Your task to perform on an android device: Go to Wikipedia Image 0: 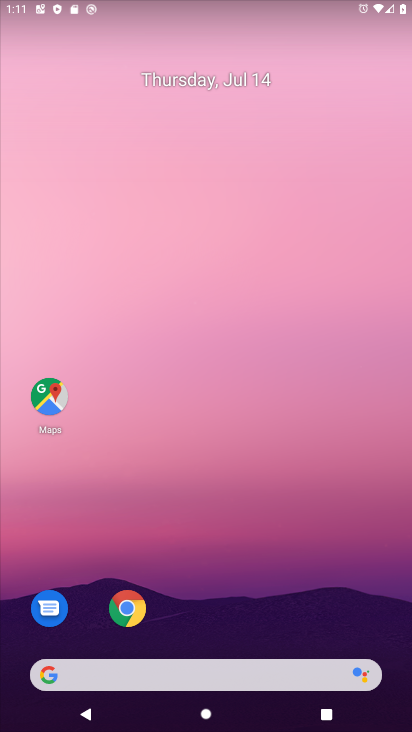
Step 0: click (119, 611)
Your task to perform on an android device: Go to Wikipedia Image 1: 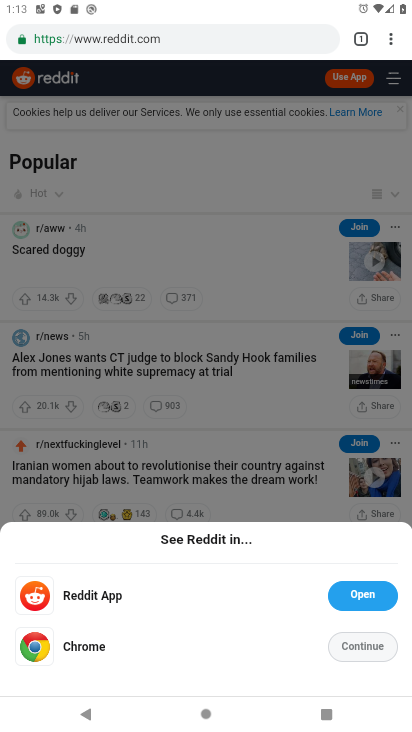
Step 1: click (174, 39)
Your task to perform on an android device: Go to Wikipedia Image 2: 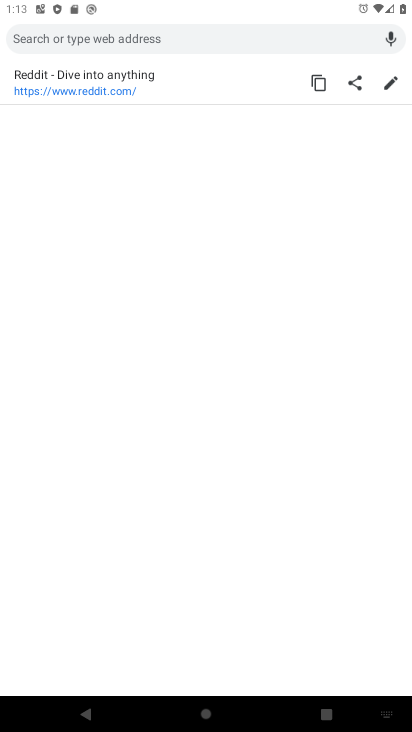
Step 2: type " Wikipedia"
Your task to perform on an android device: Go to Wikipedia Image 3: 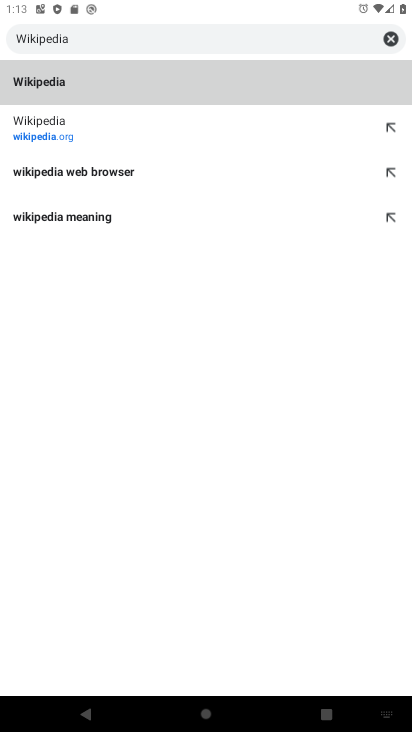
Step 3: click (67, 126)
Your task to perform on an android device: Go to Wikipedia Image 4: 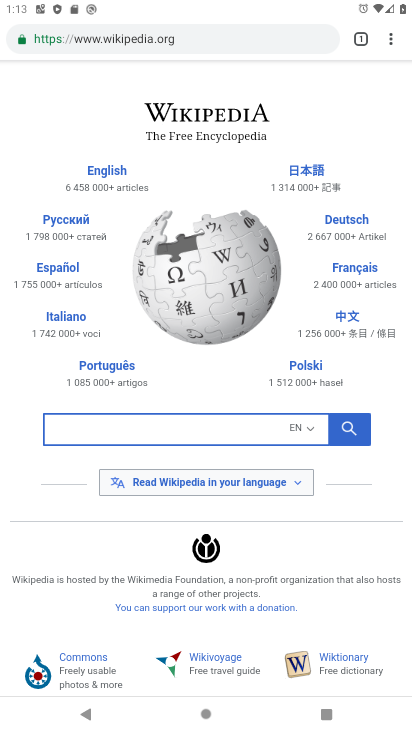
Step 4: task complete